Your task to perform on an android device: Go to Maps Image 0: 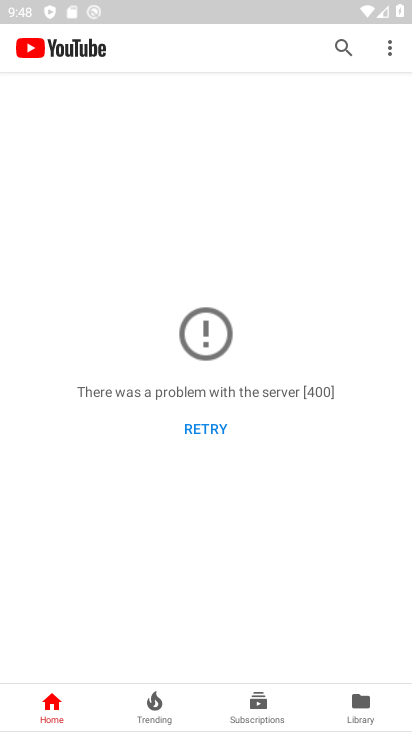
Step 0: press back button
Your task to perform on an android device: Go to Maps Image 1: 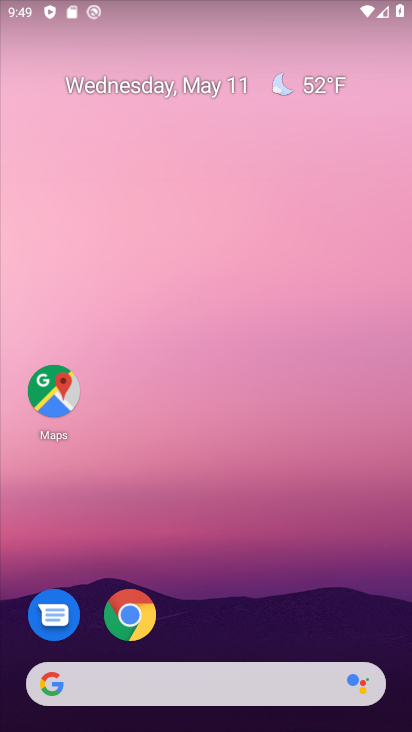
Step 1: click (56, 393)
Your task to perform on an android device: Go to Maps Image 2: 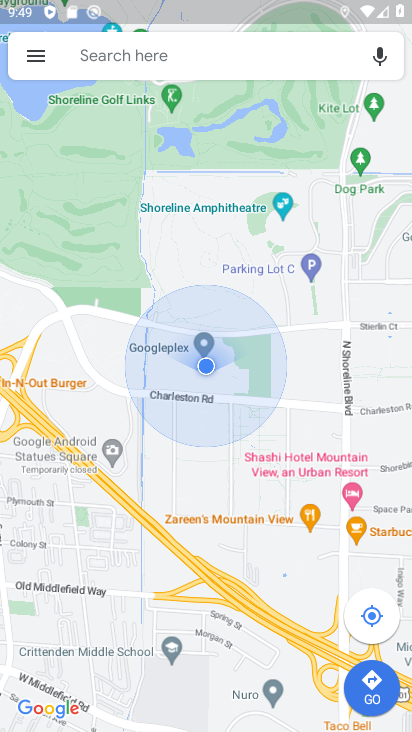
Step 2: task complete